Your task to perform on an android device: Go to Google Image 0: 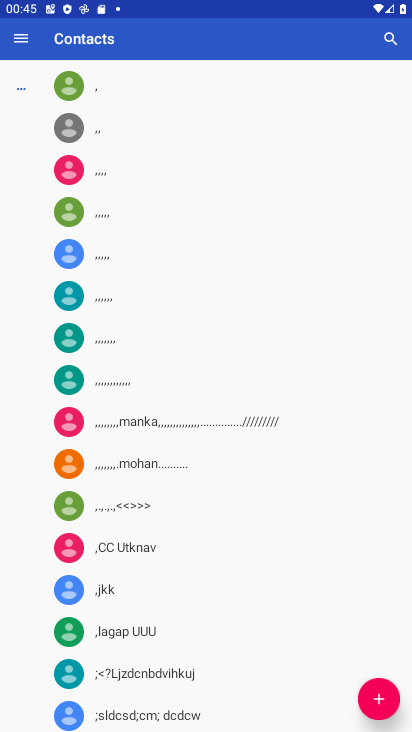
Step 0: press home button
Your task to perform on an android device: Go to Google Image 1: 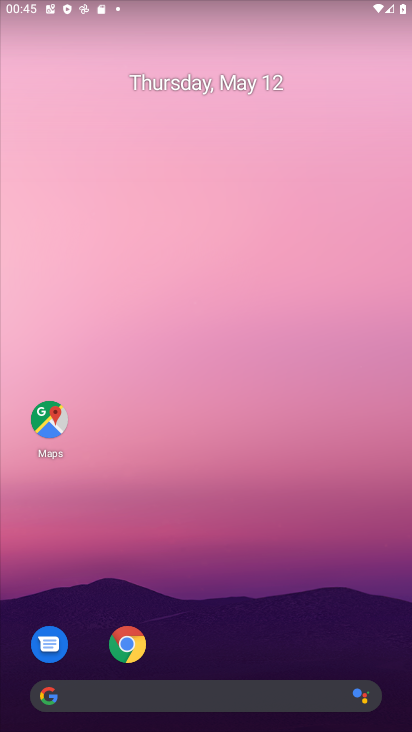
Step 1: click (130, 645)
Your task to perform on an android device: Go to Google Image 2: 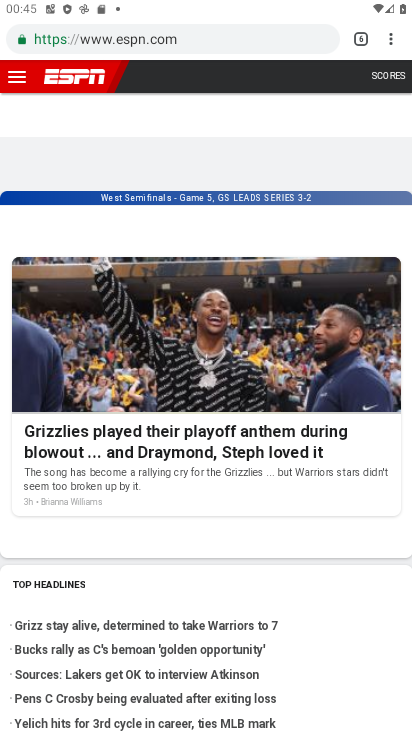
Step 2: task complete